Your task to perform on an android device: toggle improve location accuracy Image 0: 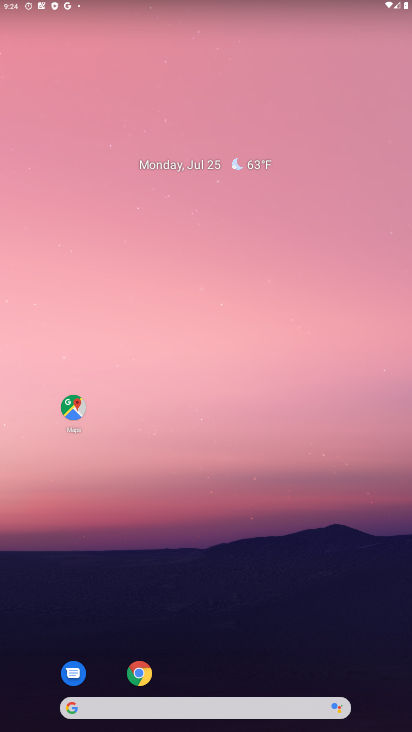
Step 0: drag from (188, 636) to (249, 124)
Your task to perform on an android device: toggle improve location accuracy Image 1: 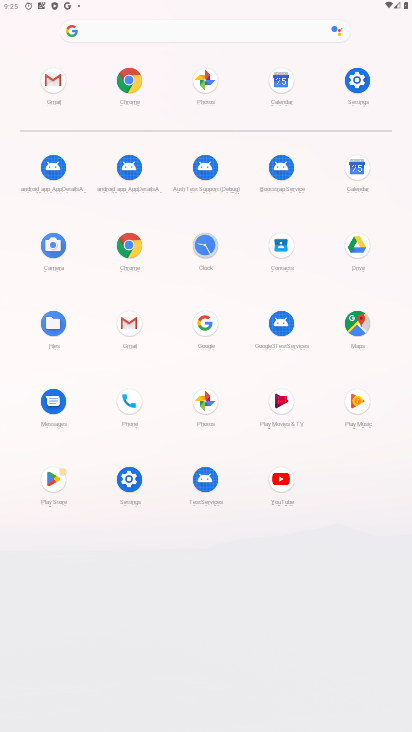
Step 1: click (125, 478)
Your task to perform on an android device: toggle improve location accuracy Image 2: 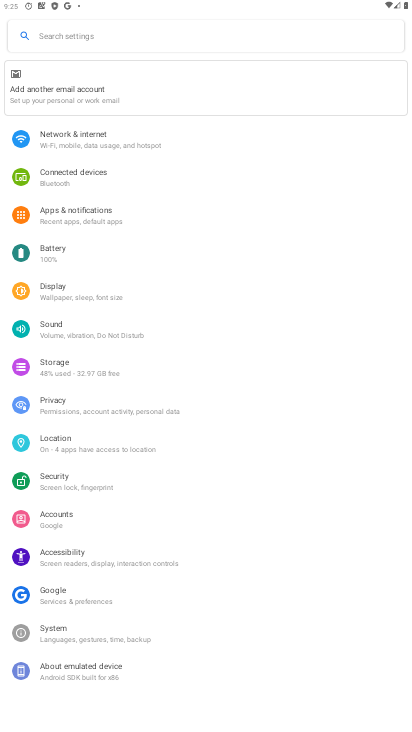
Step 2: click (76, 445)
Your task to perform on an android device: toggle improve location accuracy Image 3: 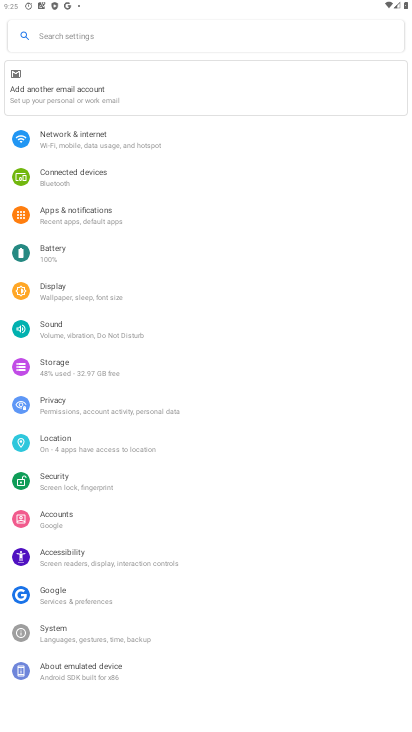
Step 3: click (76, 445)
Your task to perform on an android device: toggle improve location accuracy Image 4: 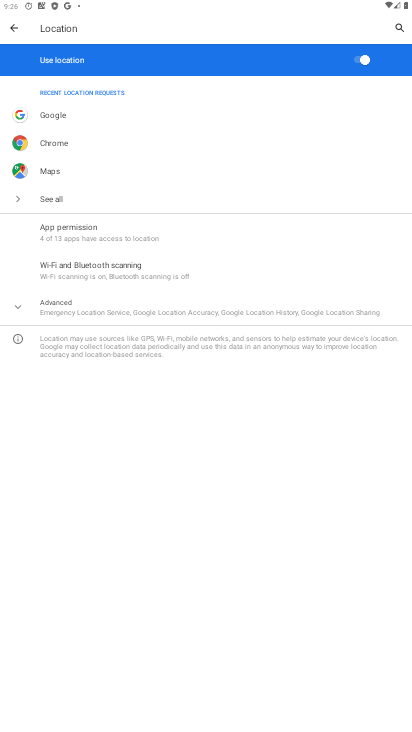
Step 4: click (74, 307)
Your task to perform on an android device: toggle improve location accuracy Image 5: 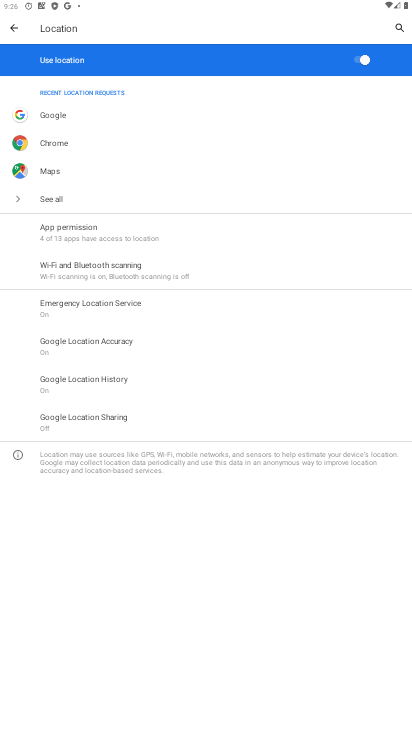
Step 5: click (136, 342)
Your task to perform on an android device: toggle improve location accuracy Image 6: 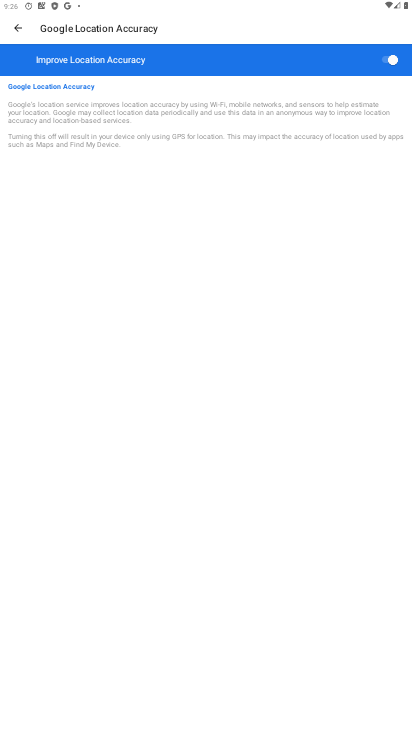
Step 6: click (395, 68)
Your task to perform on an android device: toggle improve location accuracy Image 7: 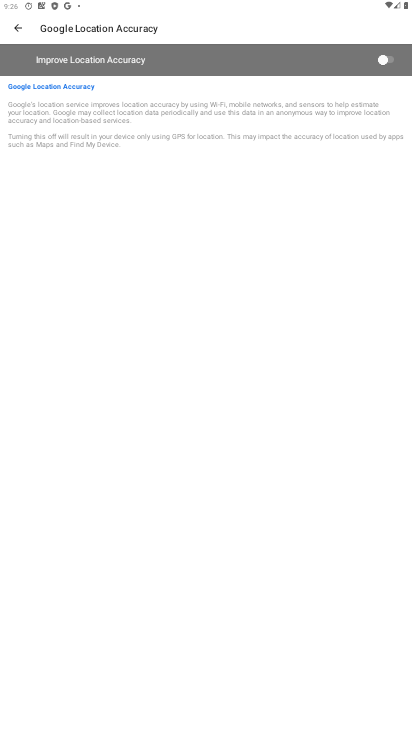
Step 7: task complete